Your task to perform on an android device: set the timer Image 0: 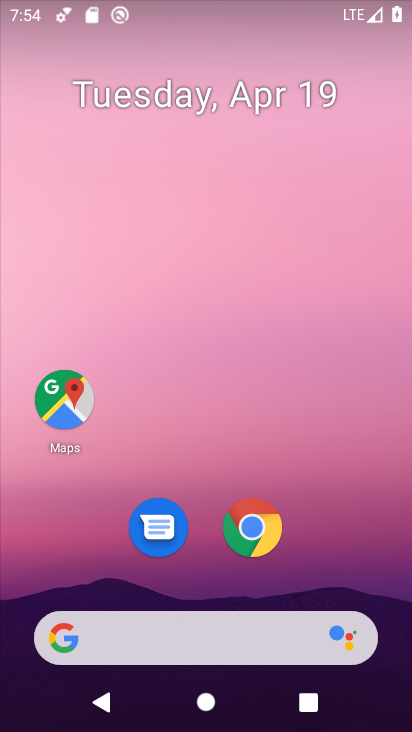
Step 0: drag from (351, 567) to (334, 132)
Your task to perform on an android device: set the timer Image 1: 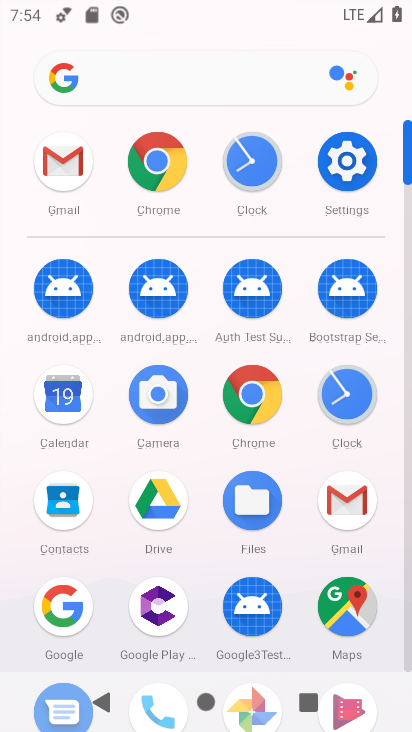
Step 1: click (361, 398)
Your task to perform on an android device: set the timer Image 2: 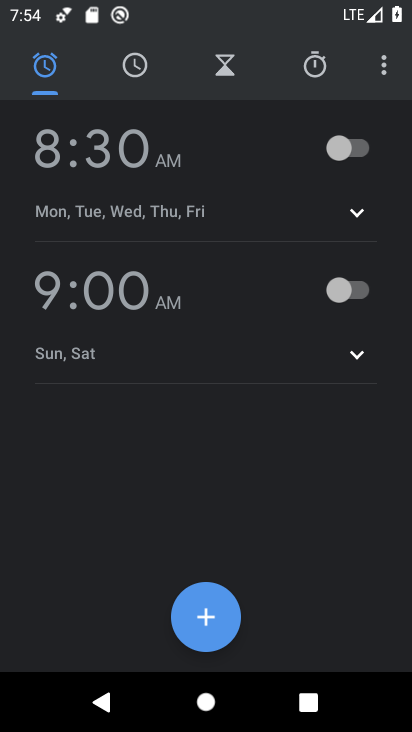
Step 2: click (228, 78)
Your task to perform on an android device: set the timer Image 3: 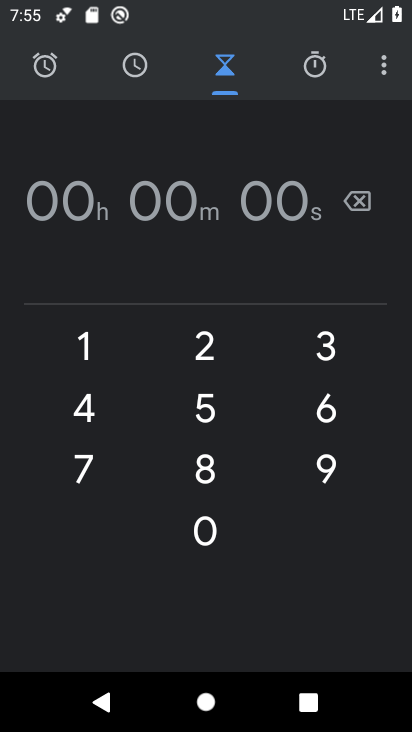
Step 3: click (83, 340)
Your task to perform on an android device: set the timer Image 4: 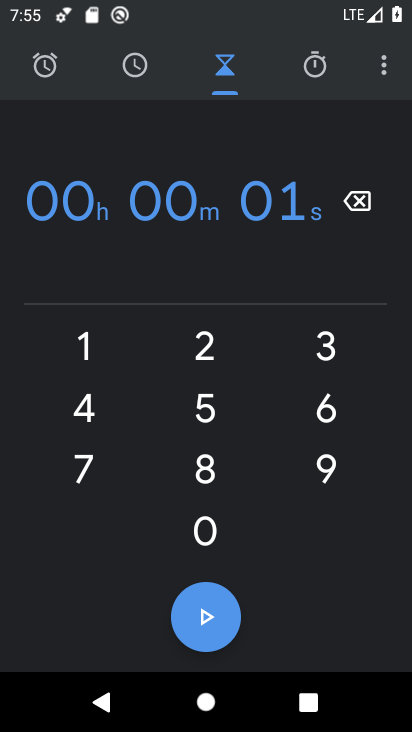
Step 4: click (209, 416)
Your task to perform on an android device: set the timer Image 5: 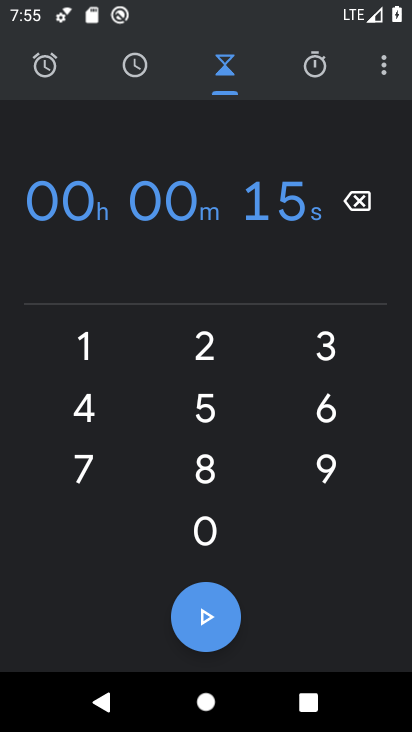
Step 5: click (201, 605)
Your task to perform on an android device: set the timer Image 6: 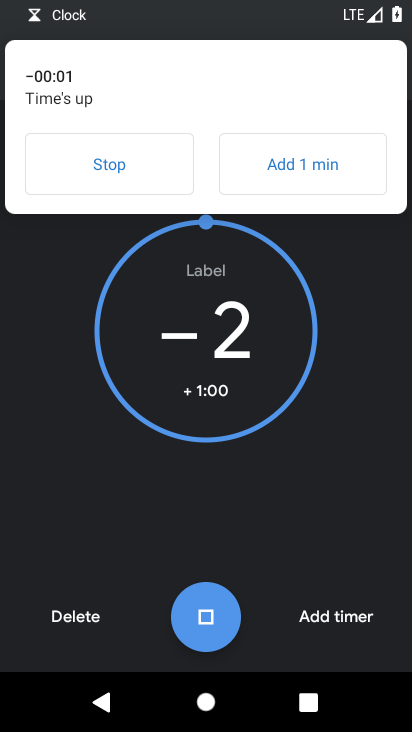
Step 6: click (106, 171)
Your task to perform on an android device: set the timer Image 7: 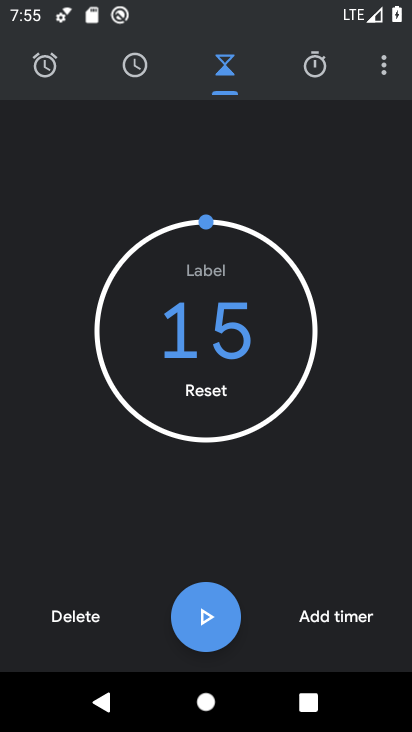
Step 7: task complete